Your task to perform on an android device: Go to eBay Image 0: 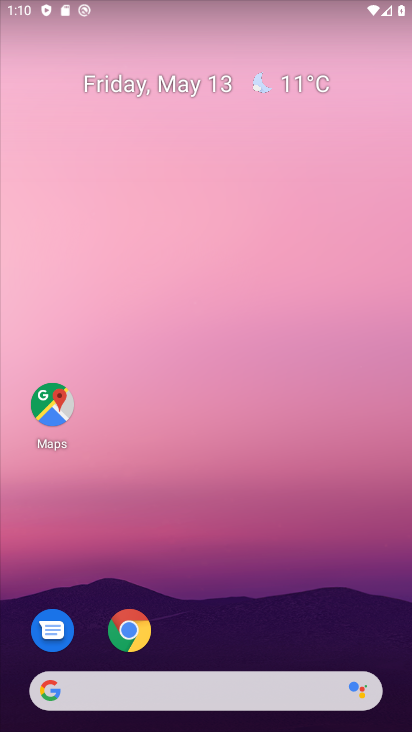
Step 0: drag from (289, 323) to (325, 187)
Your task to perform on an android device: Go to eBay Image 1: 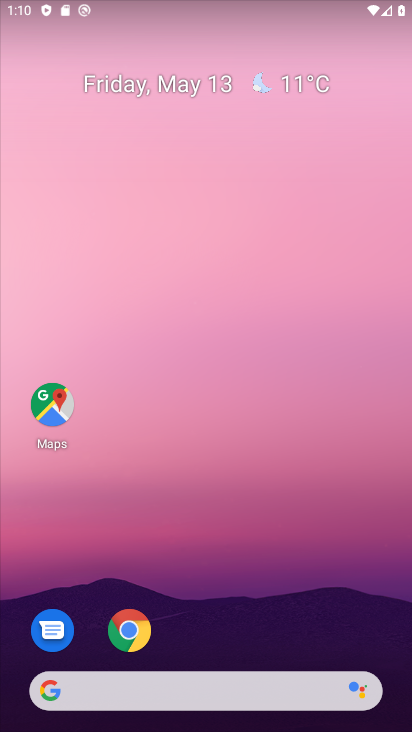
Step 1: drag from (268, 613) to (310, 202)
Your task to perform on an android device: Go to eBay Image 2: 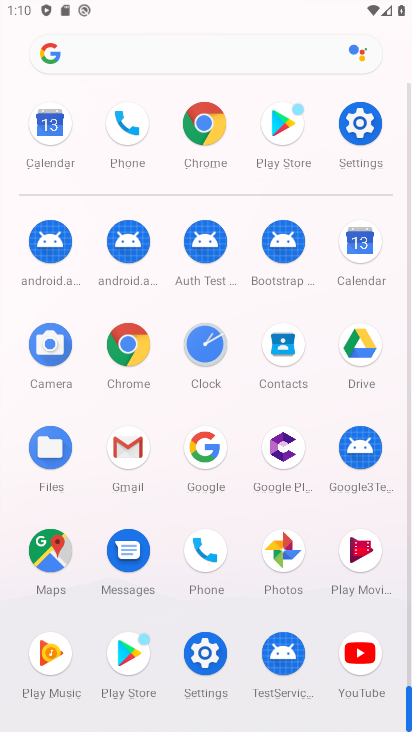
Step 2: click (129, 372)
Your task to perform on an android device: Go to eBay Image 3: 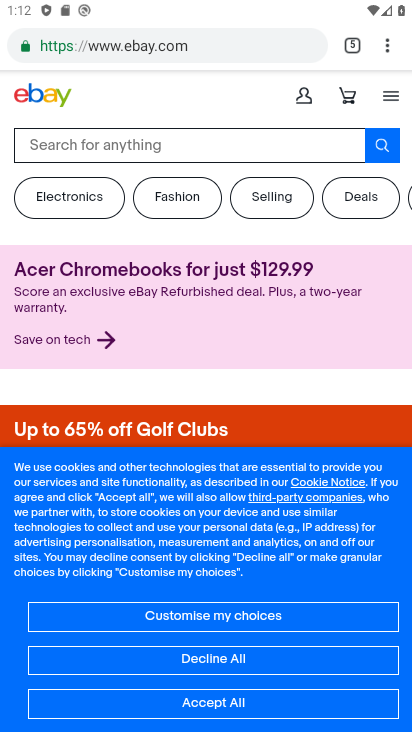
Step 3: task complete